Your task to perform on an android device: Open Google Chrome and open the bookmarks view Image 0: 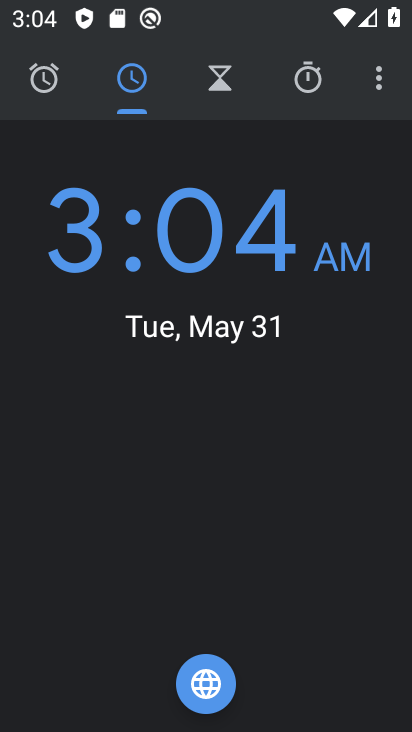
Step 0: press home button
Your task to perform on an android device: Open Google Chrome and open the bookmarks view Image 1: 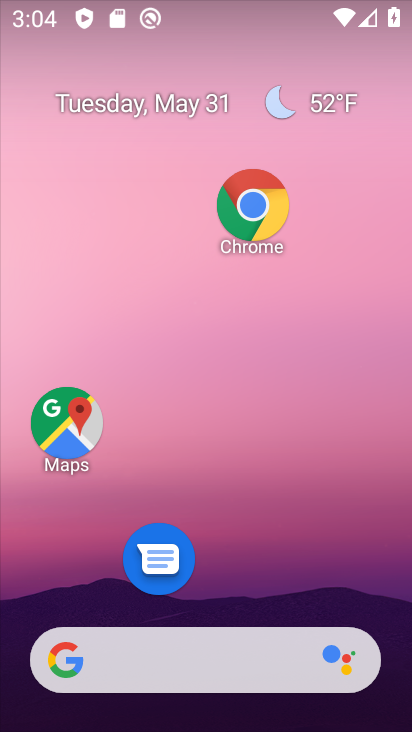
Step 1: click (239, 228)
Your task to perform on an android device: Open Google Chrome and open the bookmarks view Image 2: 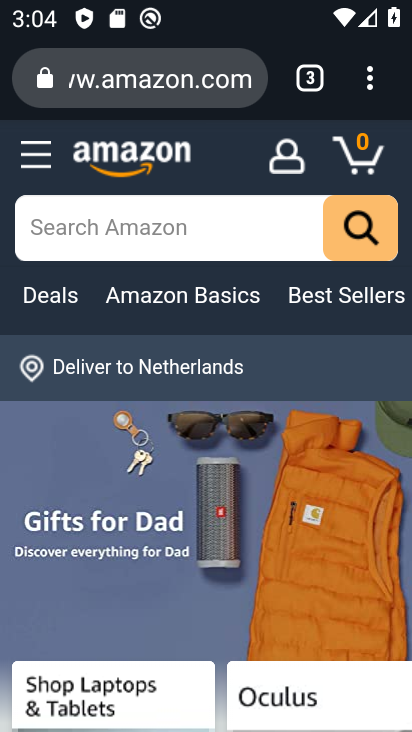
Step 2: click (366, 83)
Your task to perform on an android device: Open Google Chrome and open the bookmarks view Image 3: 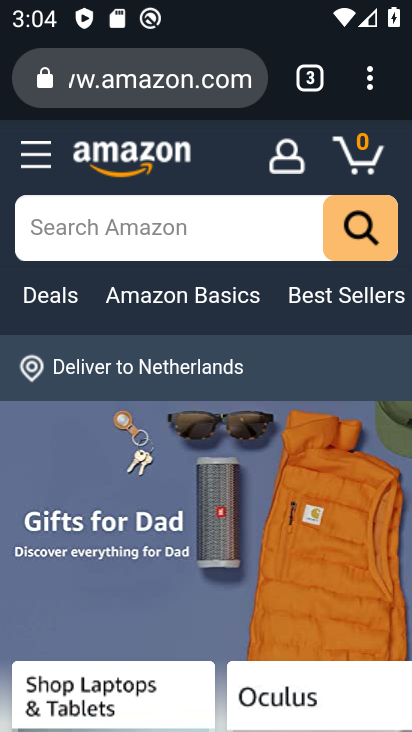
Step 3: task complete